Your task to perform on an android device: open app "VLC for Android" (install if not already installed) and go to login screen Image 0: 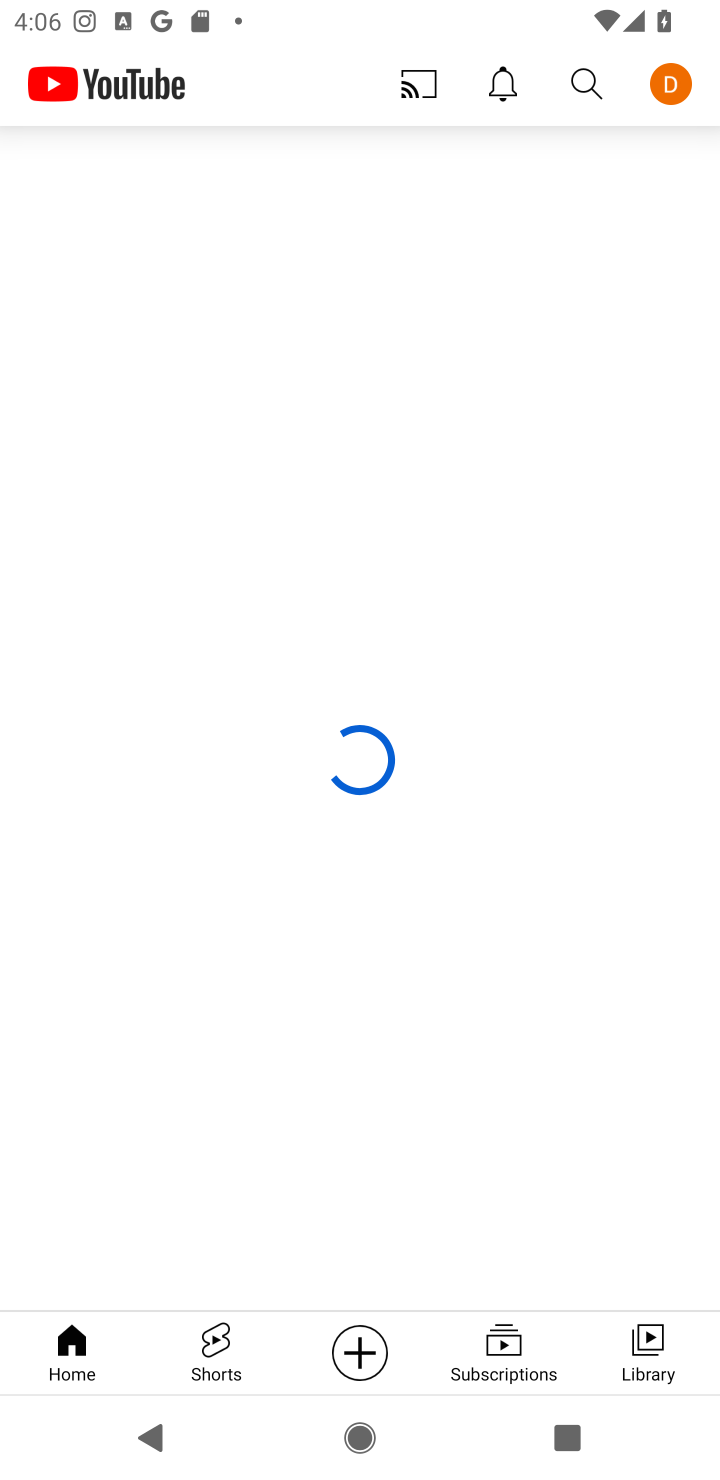
Step 0: press home button
Your task to perform on an android device: open app "VLC for Android" (install if not already installed) and go to login screen Image 1: 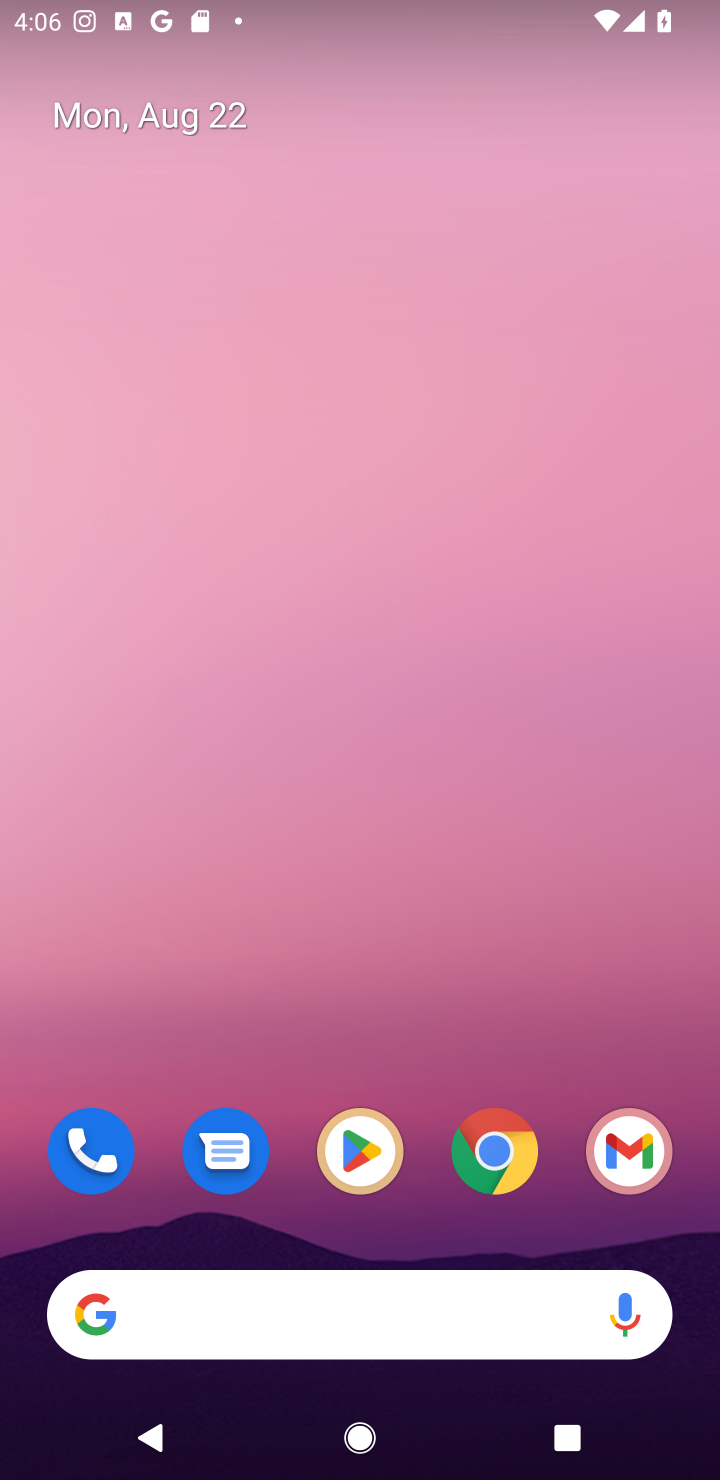
Step 1: click (362, 1146)
Your task to perform on an android device: open app "VLC for Android" (install if not already installed) and go to login screen Image 2: 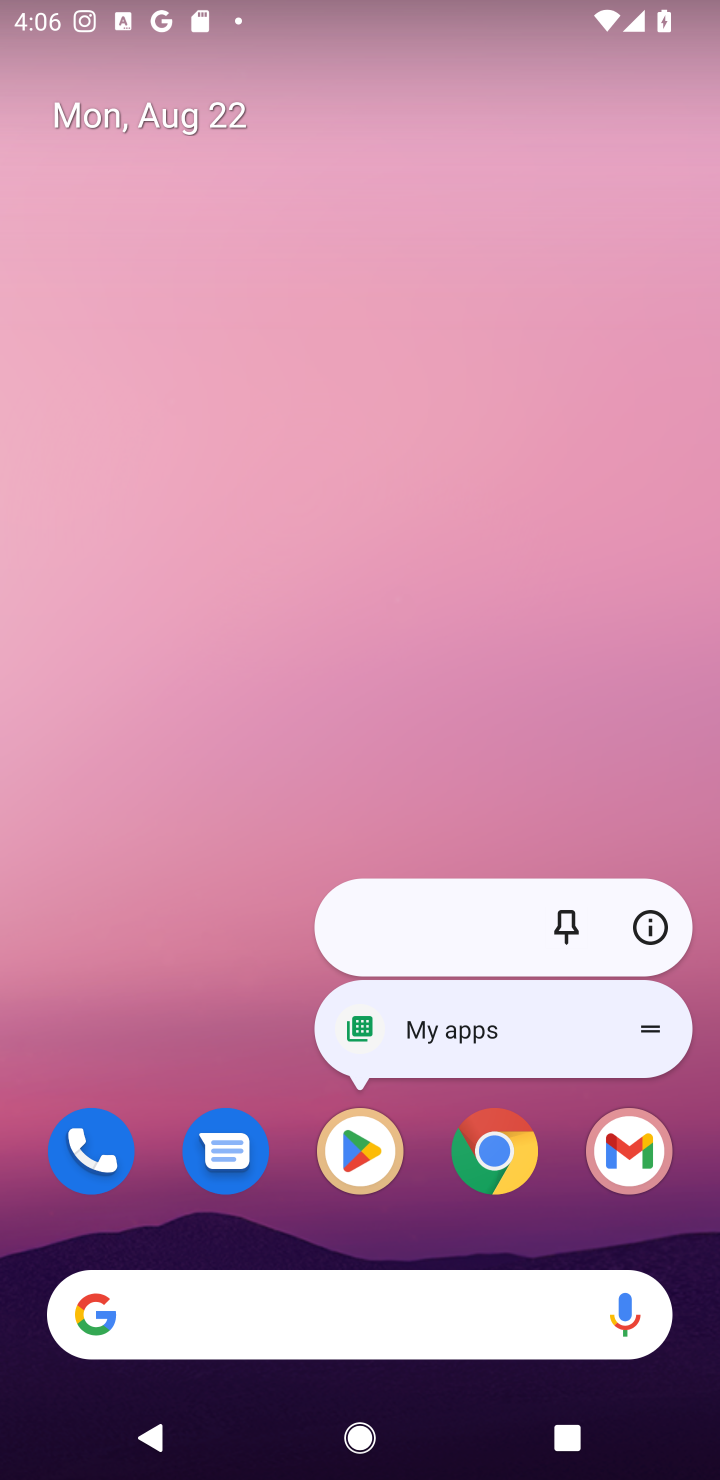
Step 2: click (362, 1147)
Your task to perform on an android device: open app "VLC for Android" (install if not already installed) and go to login screen Image 3: 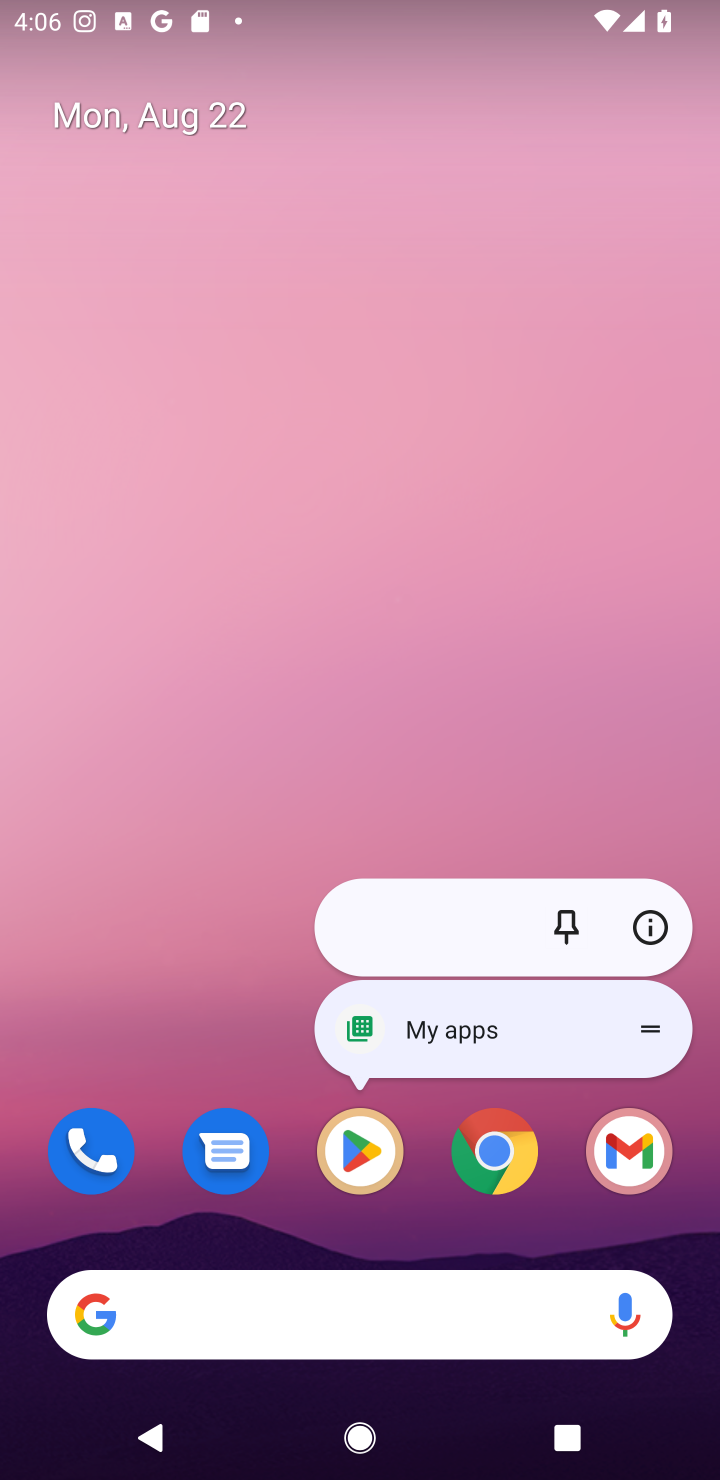
Step 3: click (362, 1151)
Your task to perform on an android device: open app "VLC for Android" (install if not already installed) and go to login screen Image 4: 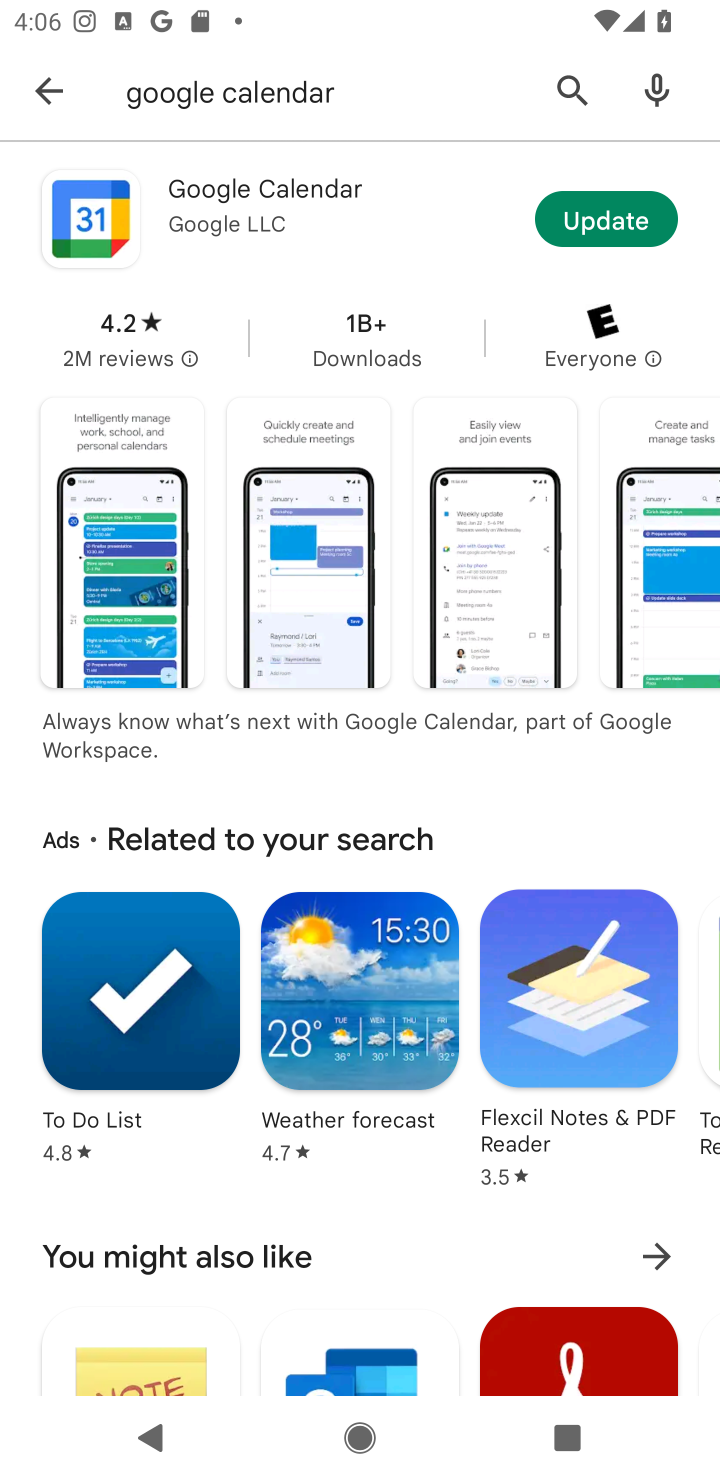
Step 4: click (562, 83)
Your task to perform on an android device: open app "VLC for Android" (install if not already installed) and go to login screen Image 5: 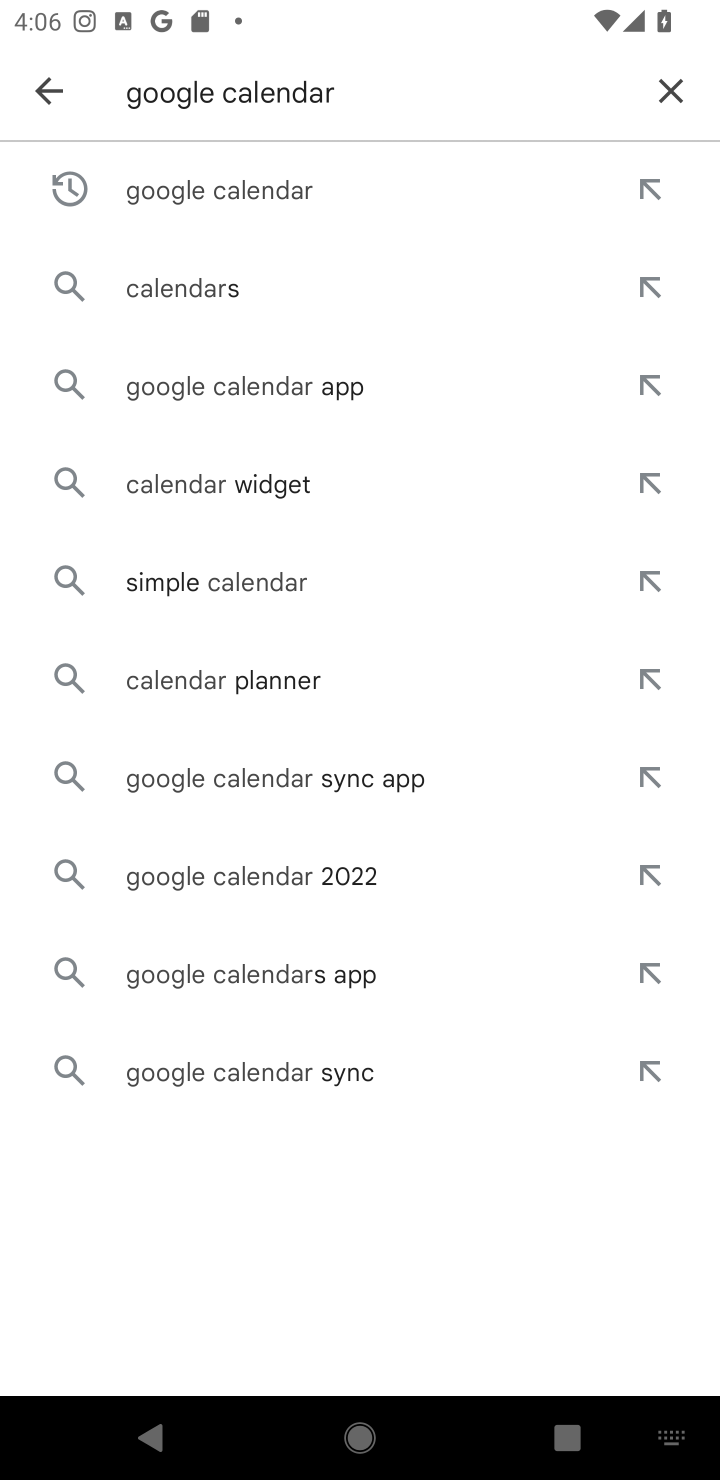
Step 5: click (679, 89)
Your task to perform on an android device: open app "VLC for Android" (install if not already installed) and go to login screen Image 6: 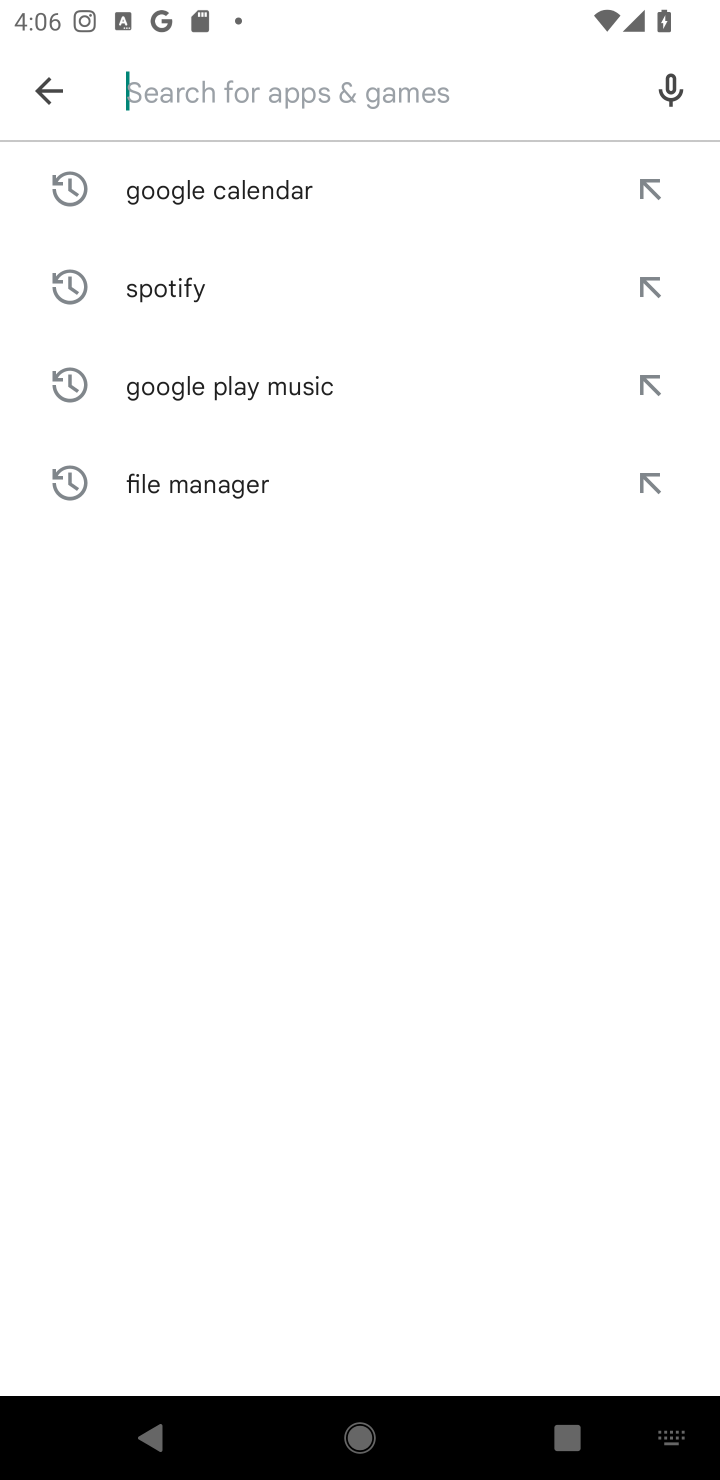
Step 6: type "VLC for Android"
Your task to perform on an android device: open app "VLC for Android" (install if not already installed) and go to login screen Image 7: 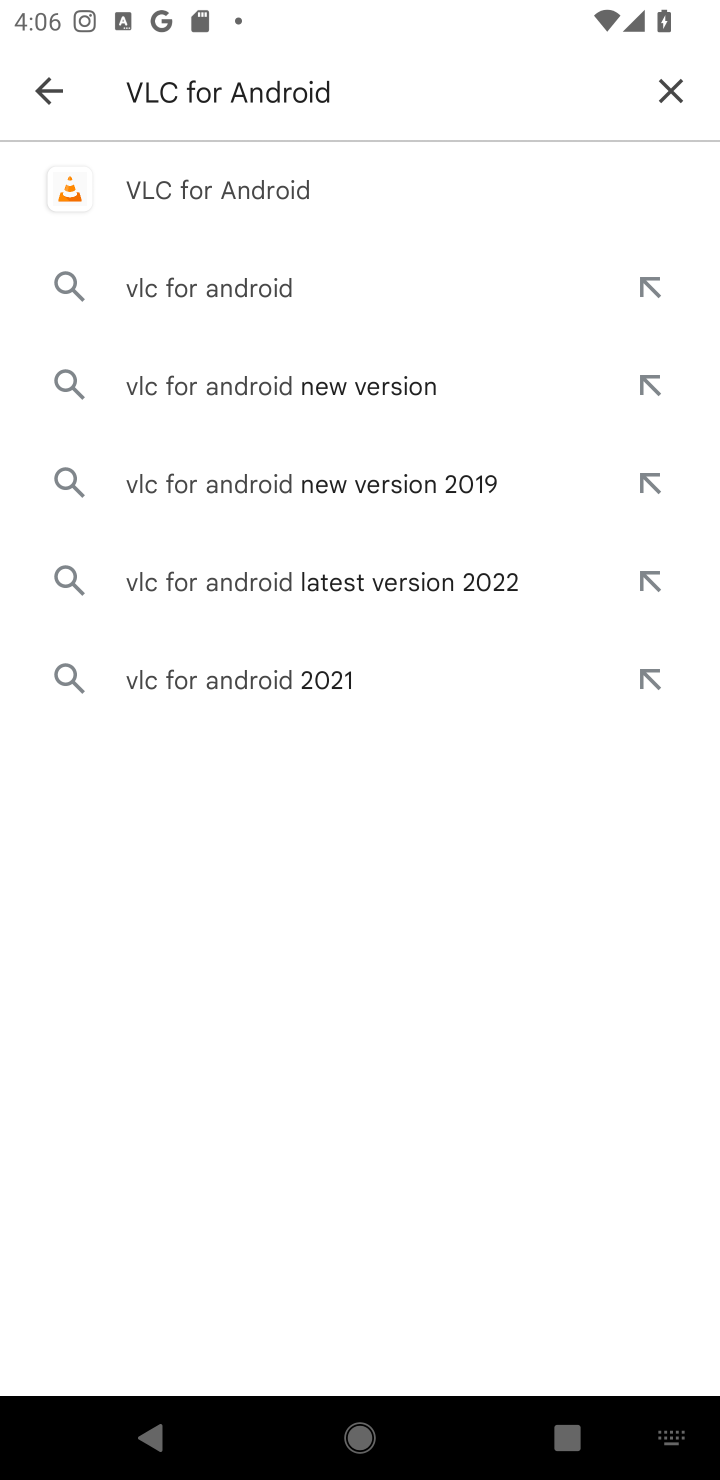
Step 7: click (228, 181)
Your task to perform on an android device: open app "VLC for Android" (install if not already installed) and go to login screen Image 8: 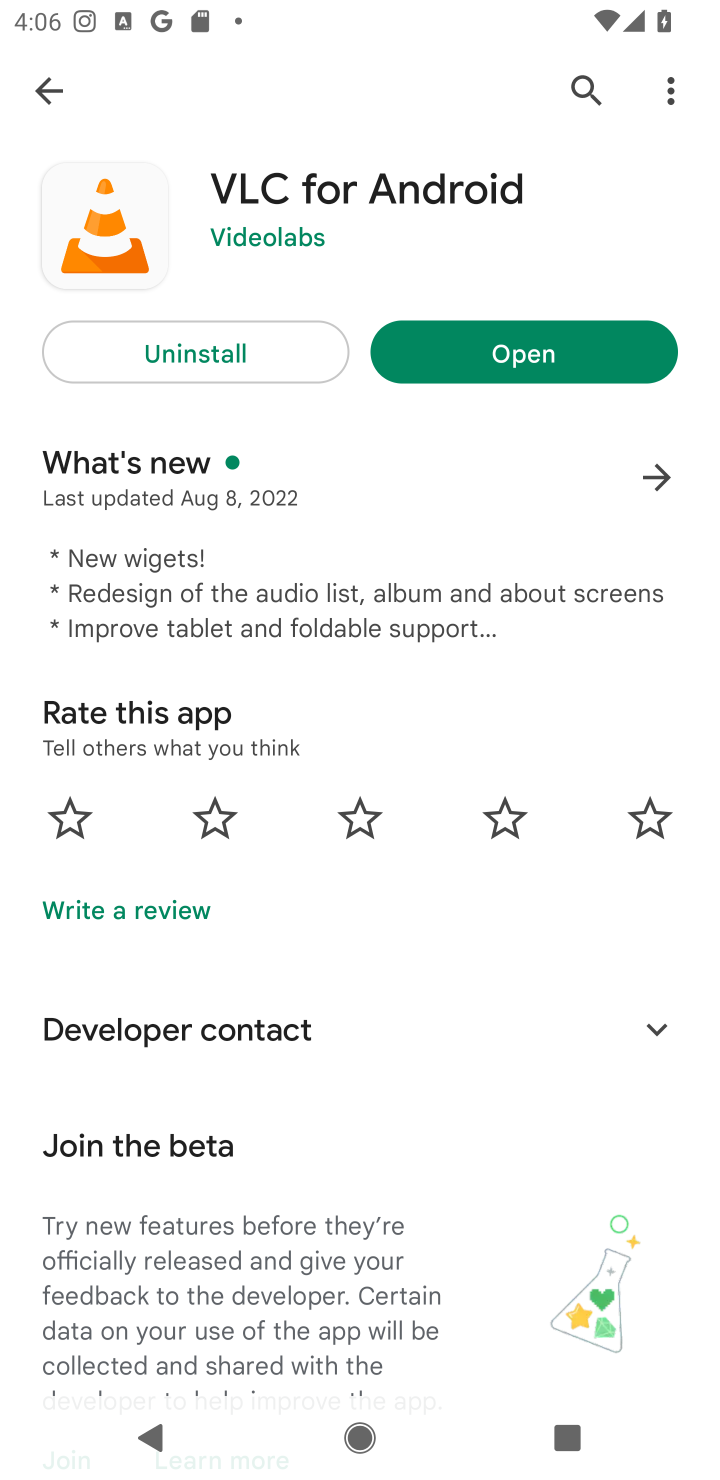
Step 8: click (533, 347)
Your task to perform on an android device: open app "VLC for Android" (install if not already installed) and go to login screen Image 9: 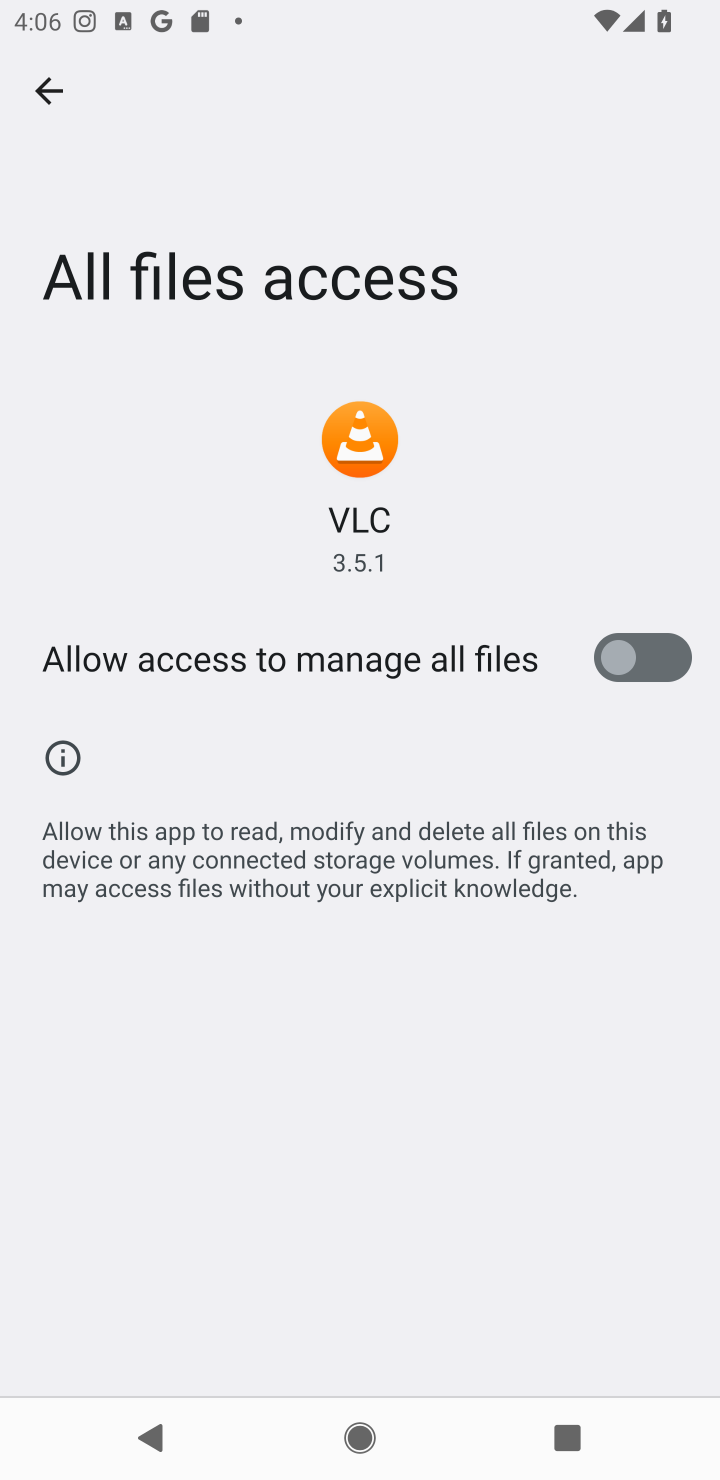
Step 9: task complete